Your task to perform on an android device: uninstall "Pinterest" Image 0: 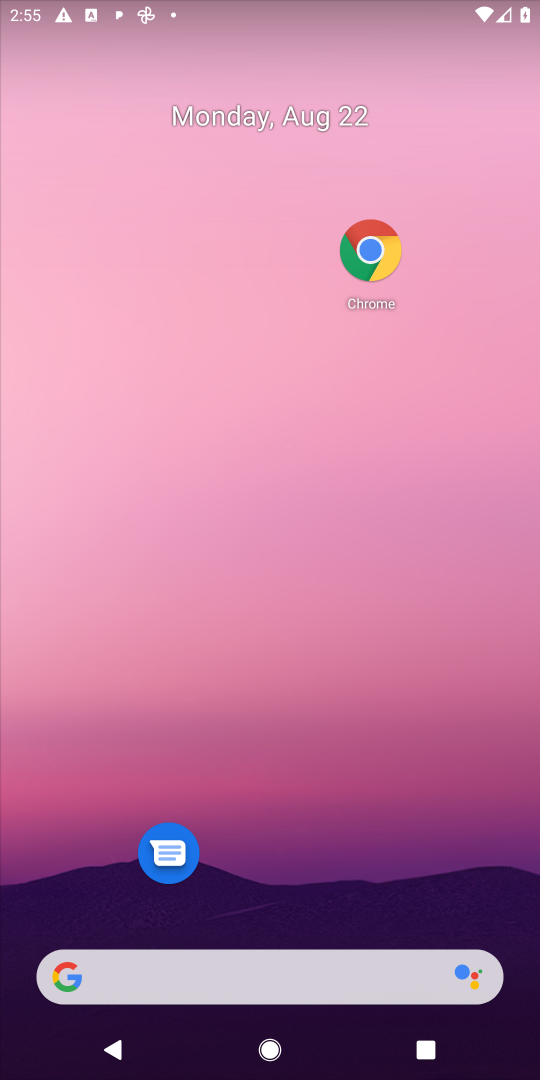
Step 0: drag from (313, 898) to (293, 281)
Your task to perform on an android device: uninstall "Pinterest" Image 1: 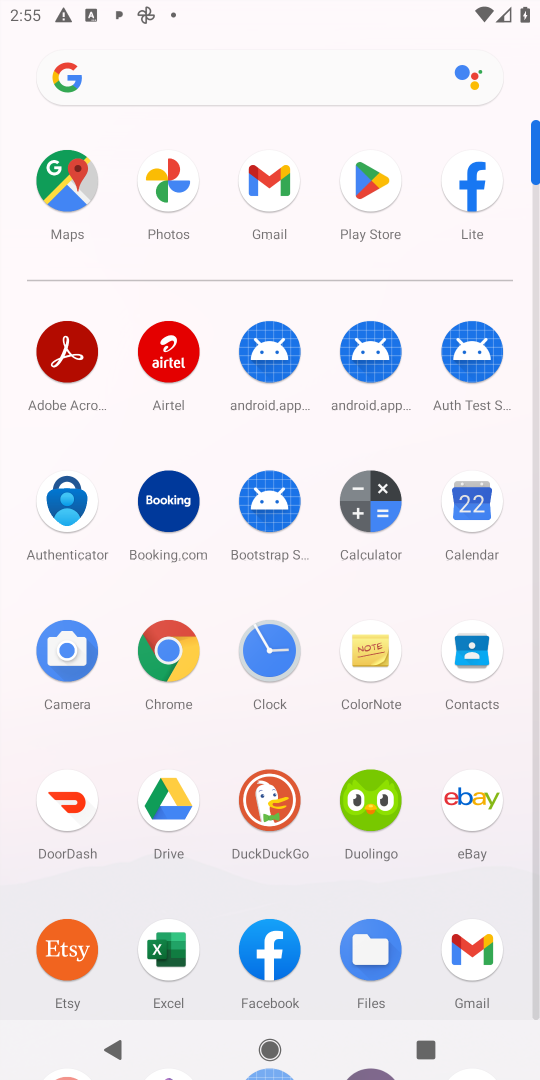
Step 1: click (358, 172)
Your task to perform on an android device: uninstall "Pinterest" Image 2: 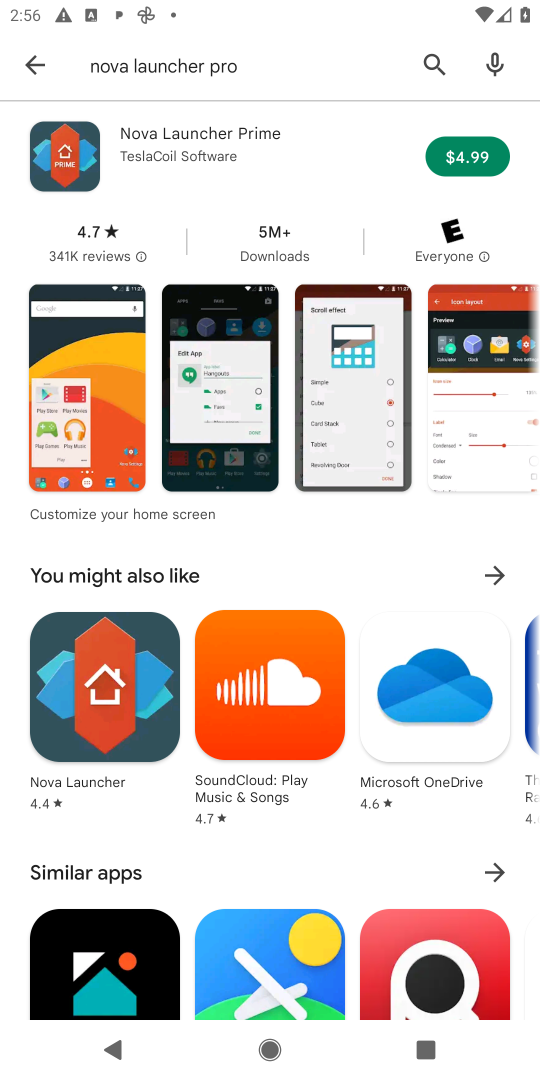
Step 2: click (14, 50)
Your task to perform on an android device: uninstall "Pinterest" Image 3: 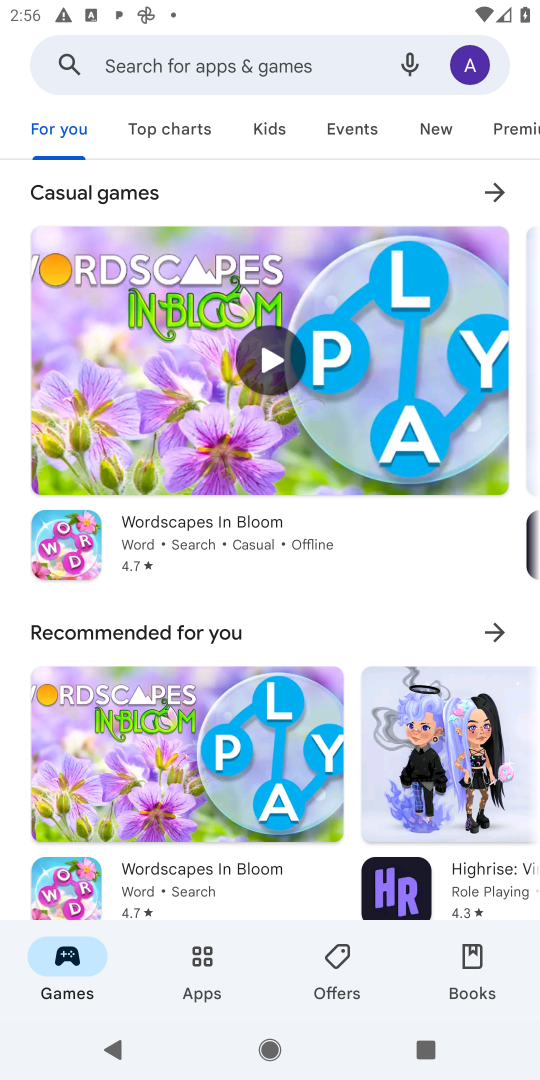
Step 3: click (203, 64)
Your task to perform on an android device: uninstall "Pinterest" Image 4: 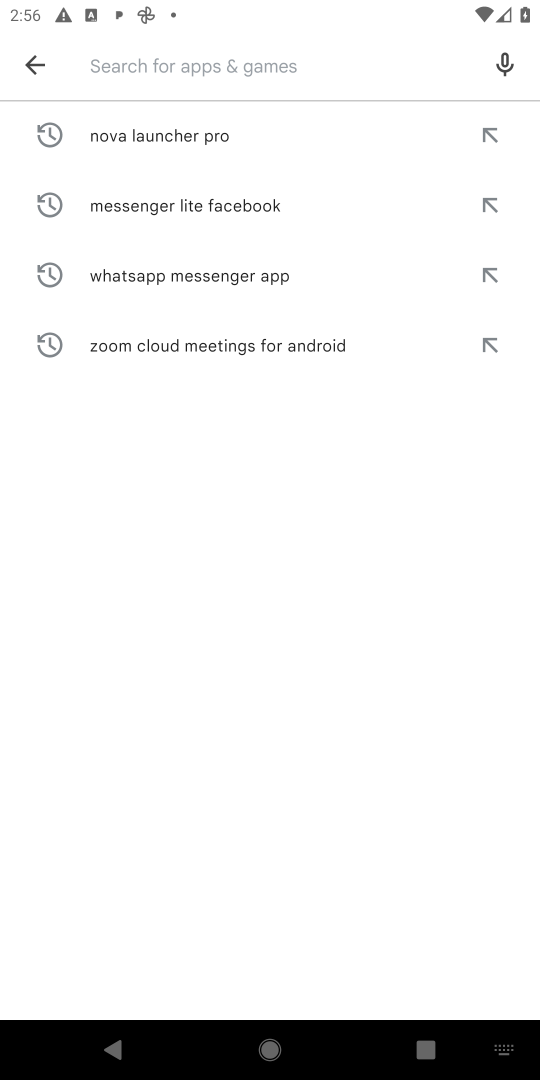
Step 4: type "Pinterest "
Your task to perform on an android device: uninstall "Pinterest" Image 5: 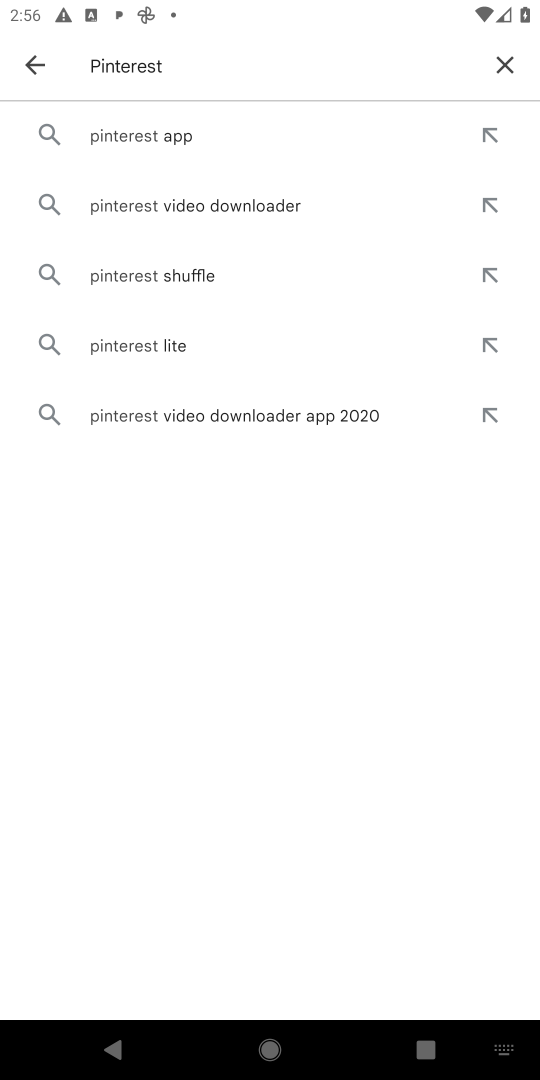
Step 5: click (158, 111)
Your task to perform on an android device: uninstall "Pinterest" Image 6: 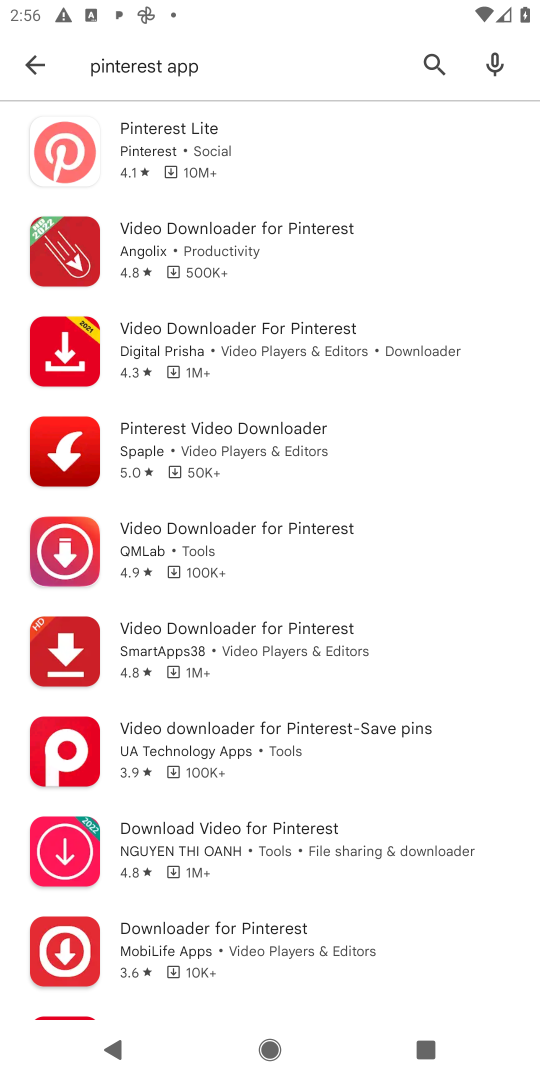
Step 6: click (160, 155)
Your task to perform on an android device: uninstall "Pinterest" Image 7: 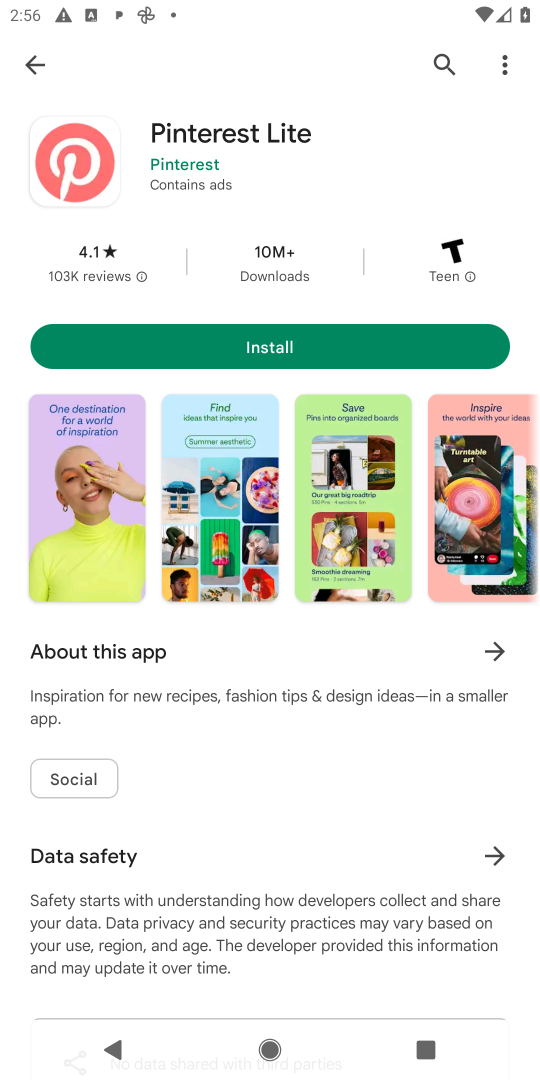
Step 7: task complete